Your task to perform on an android device: What's the weather? Image 0: 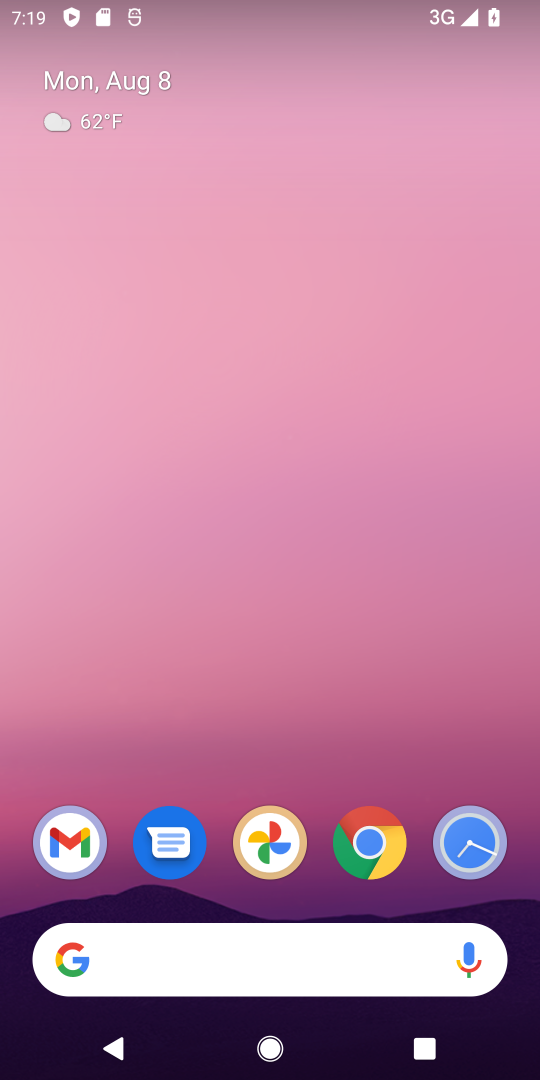
Step 0: click (184, 962)
Your task to perform on an android device: What's the weather? Image 1: 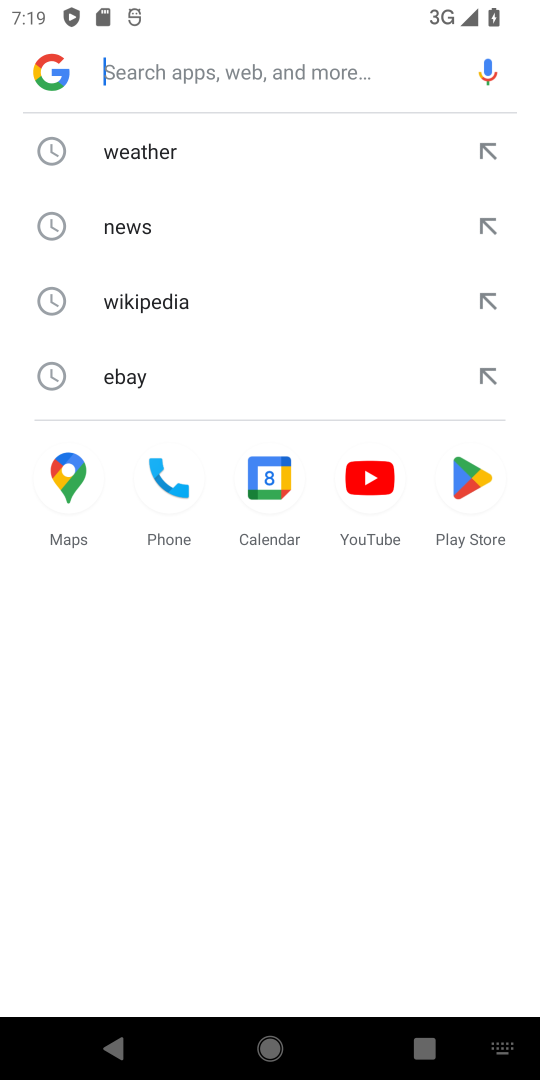
Step 1: click (138, 154)
Your task to perform on an android device: What's the weather? Image 2: 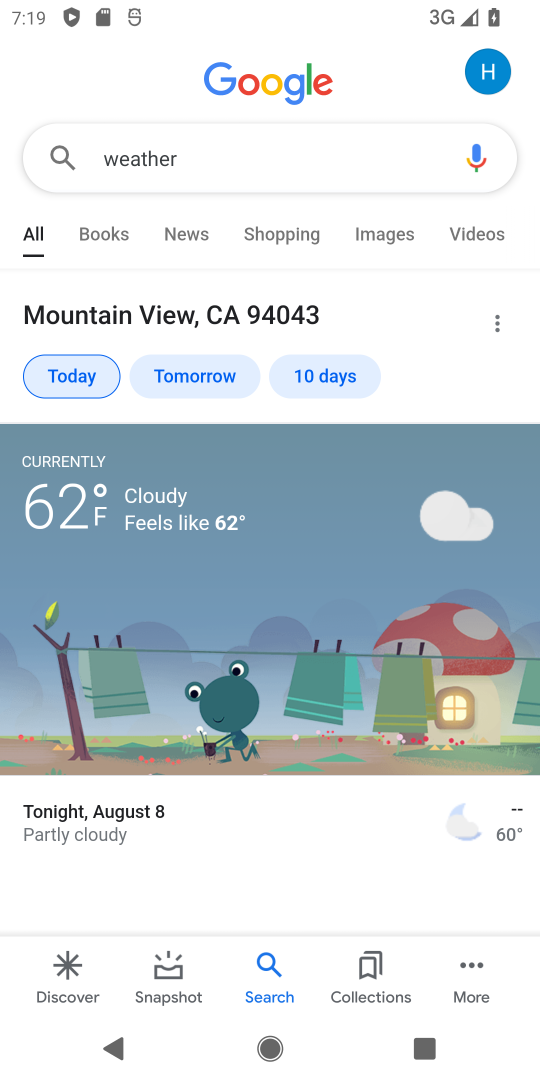
Step 2: task complete